Your task to perform on an android device: What's the weather going to be this weekend? Image 0: 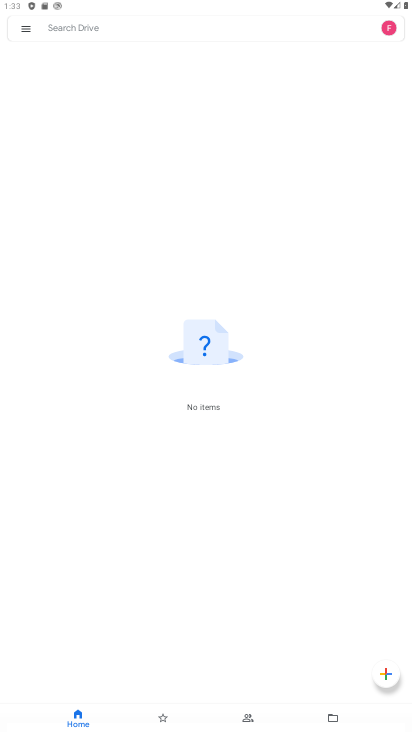
Step 0: press home button
Your task to perform on an android device: What's the weather going to be this weekend? Image 1: 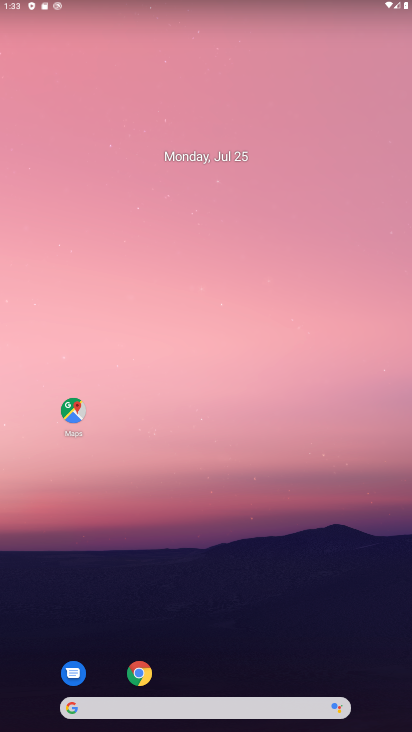
Step 1: click (101, 709)
Your task to perform on an android device: What's the weather going to be this weekend? Image 2: 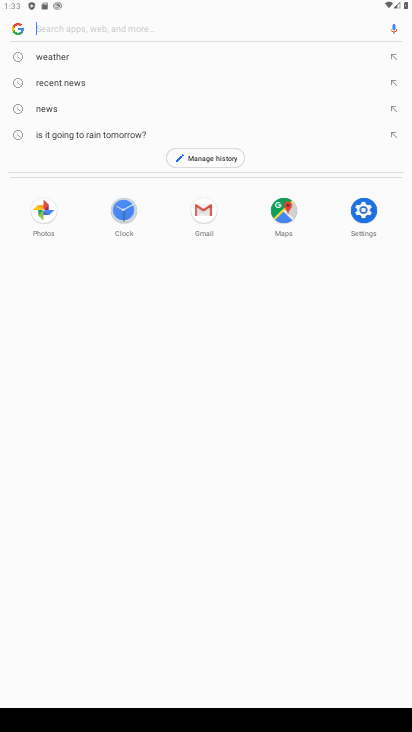
Step 2: click (61, 61)
Your task to perform on an android device: What's the weather going to be this weekend? Image 3: 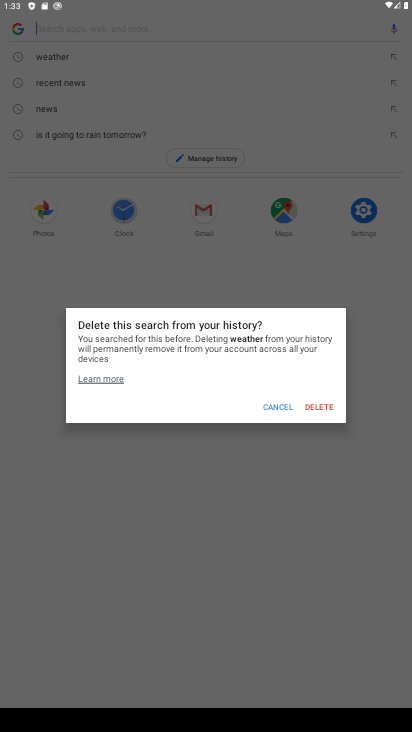
Step 3: click (276, 406)
Your task to perform on an android device: What's the weather going to be this weekend? Image 4: 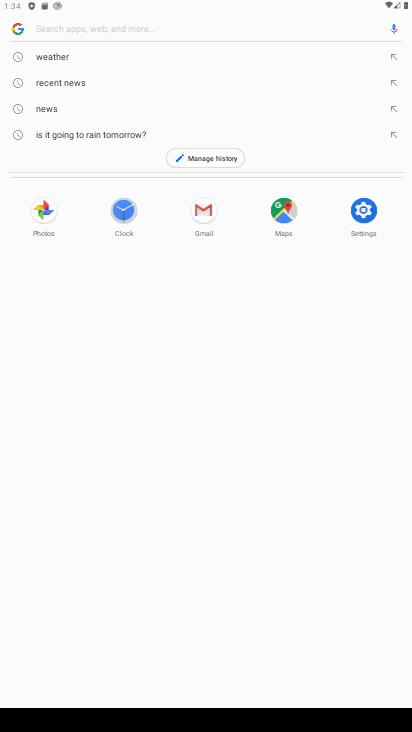
Step 4: type "weeekend weather"
Your task to perform on an android device: What's the weather going to be this weekend? Image 5: 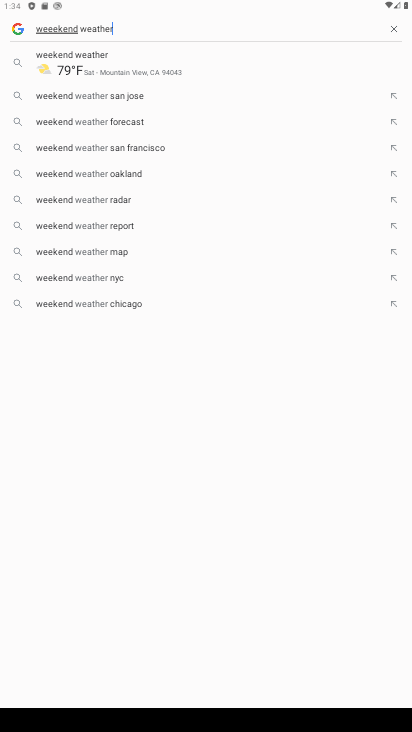
Step 5: click (199, 67)
Your task to perform on an android device: What's the weather going to be this weekend? Image 6: 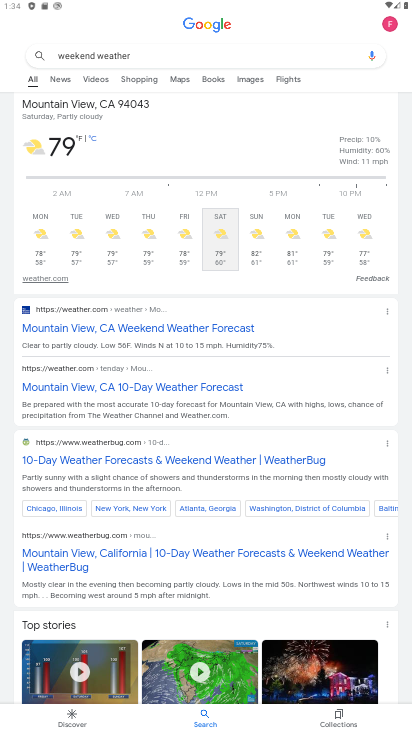
Step 6: task complete